Your task to perform on an android device: Turn on the flashlight Image 0: 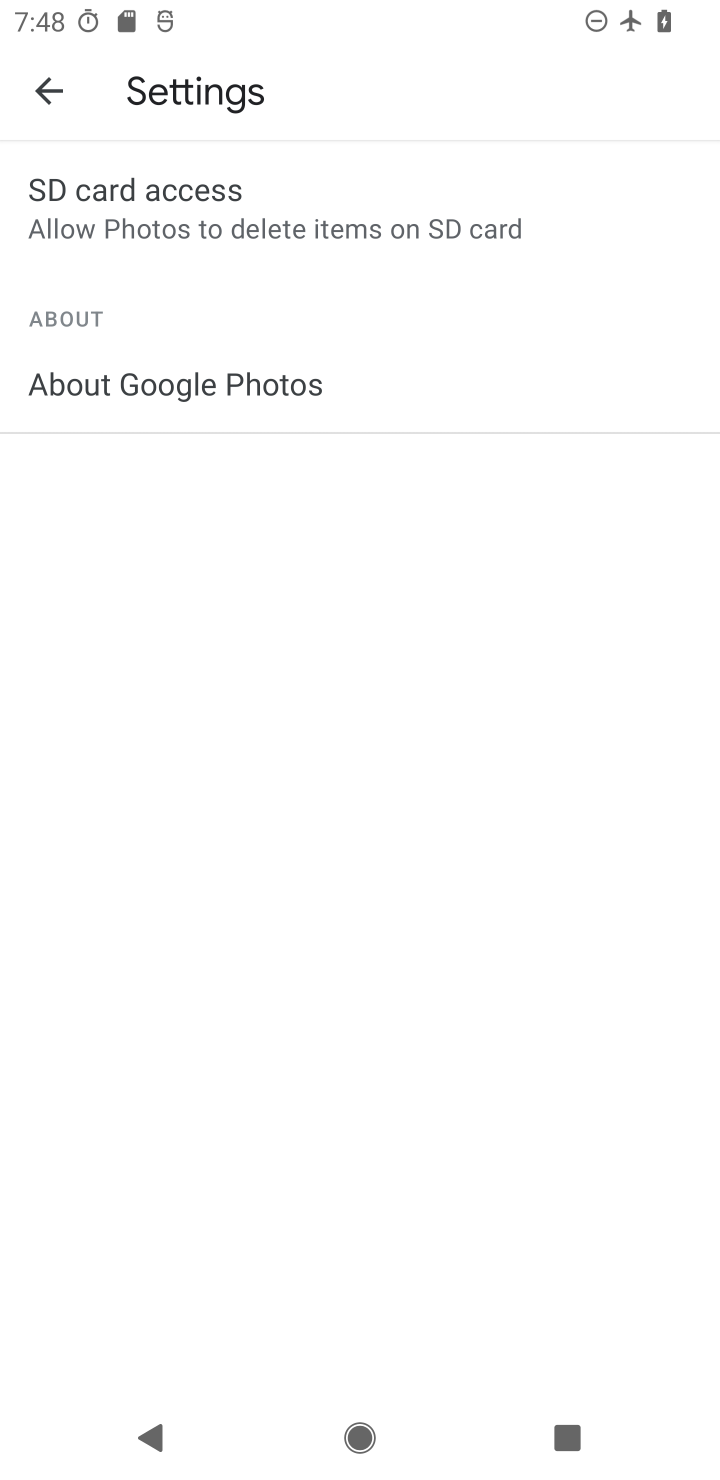
Step 0: press home button
Your task to perform on an android device: Turn on the flashlight Image 1: 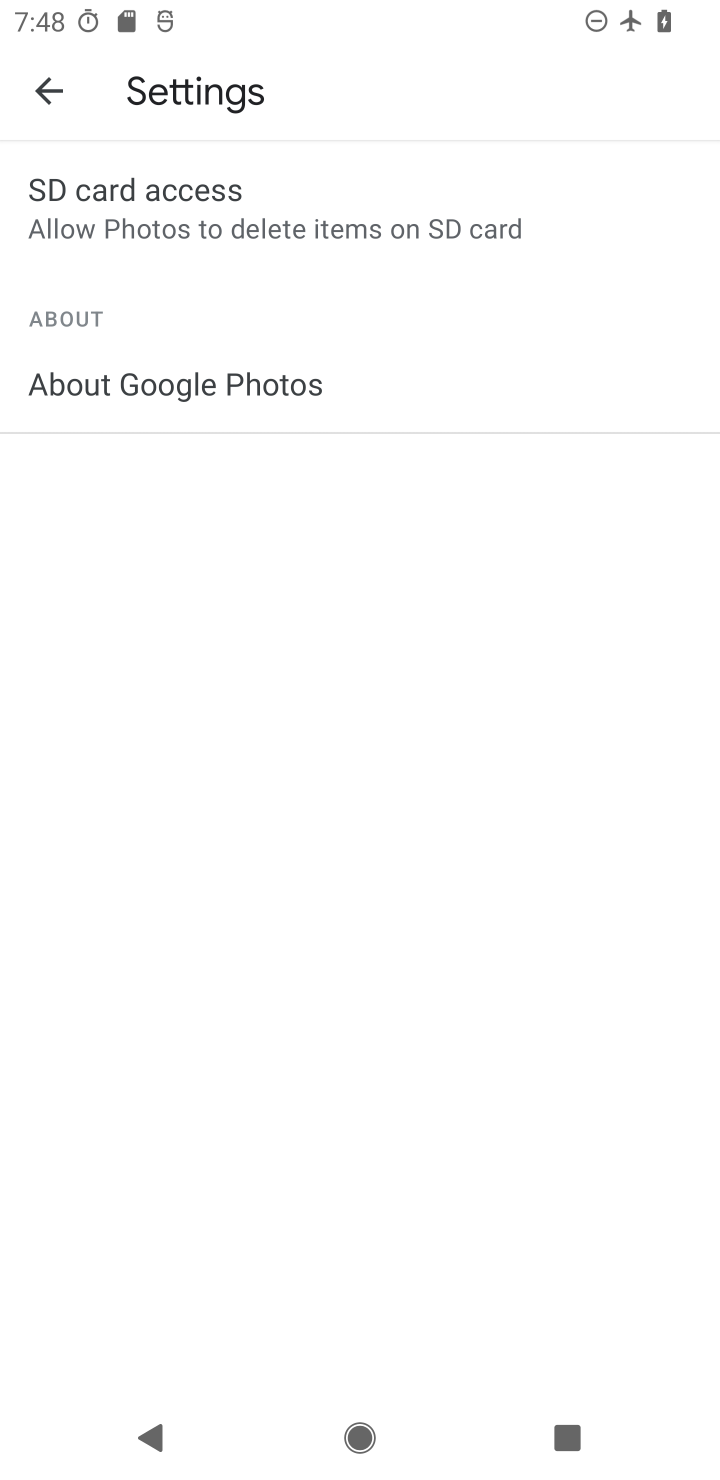
Step 1: press home button
Your task to perform on an android device: Turn on the flashlight Image 2: 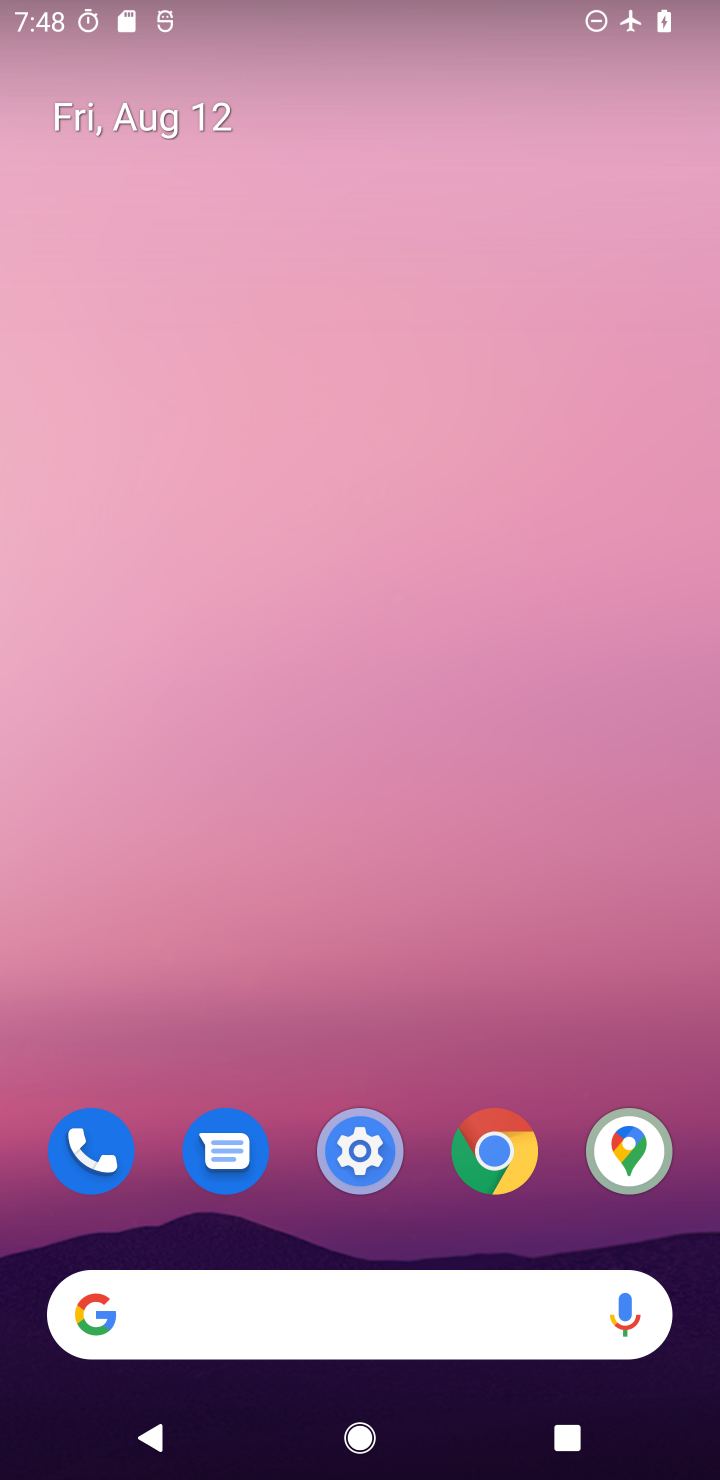
Step 2: drag from (459, 881) to (673, 17)
Your task to perform on an android device: Turn on the flashlight Image 3: 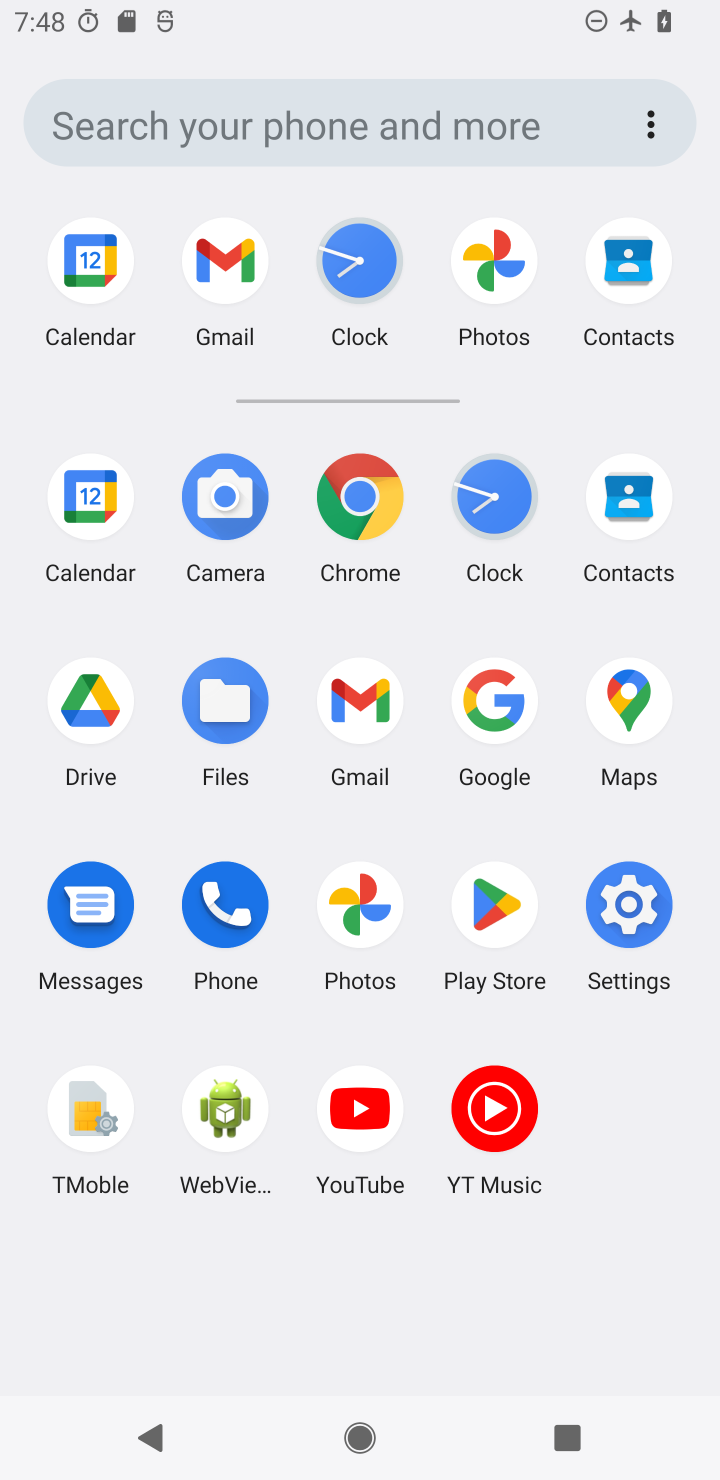
Step 3: click (624, 924)
Your task to perform on an android device: Turn on the flashlight Image 4: 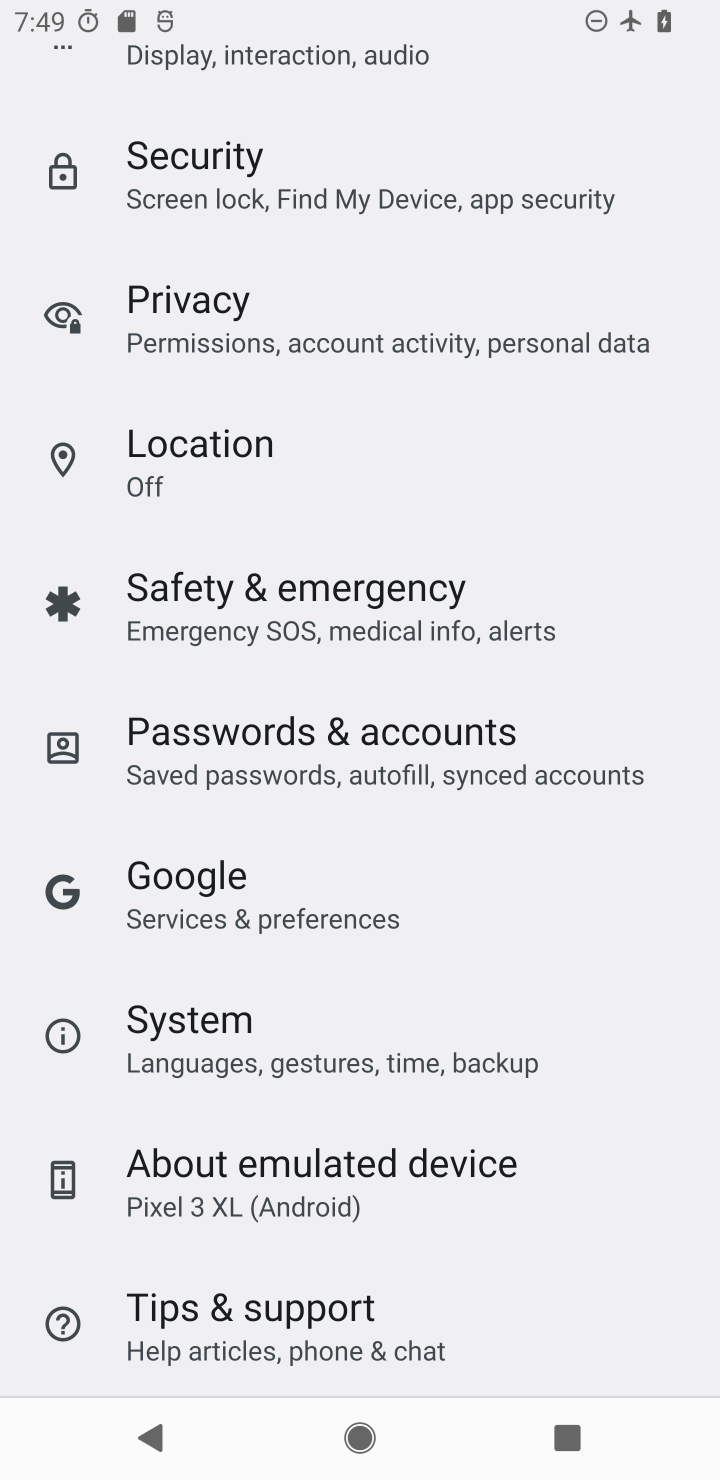
Step 4: drag from (489, 291) to (434, 1387)
Your task to perform on an android device: Turn on the flashlight Image 5: 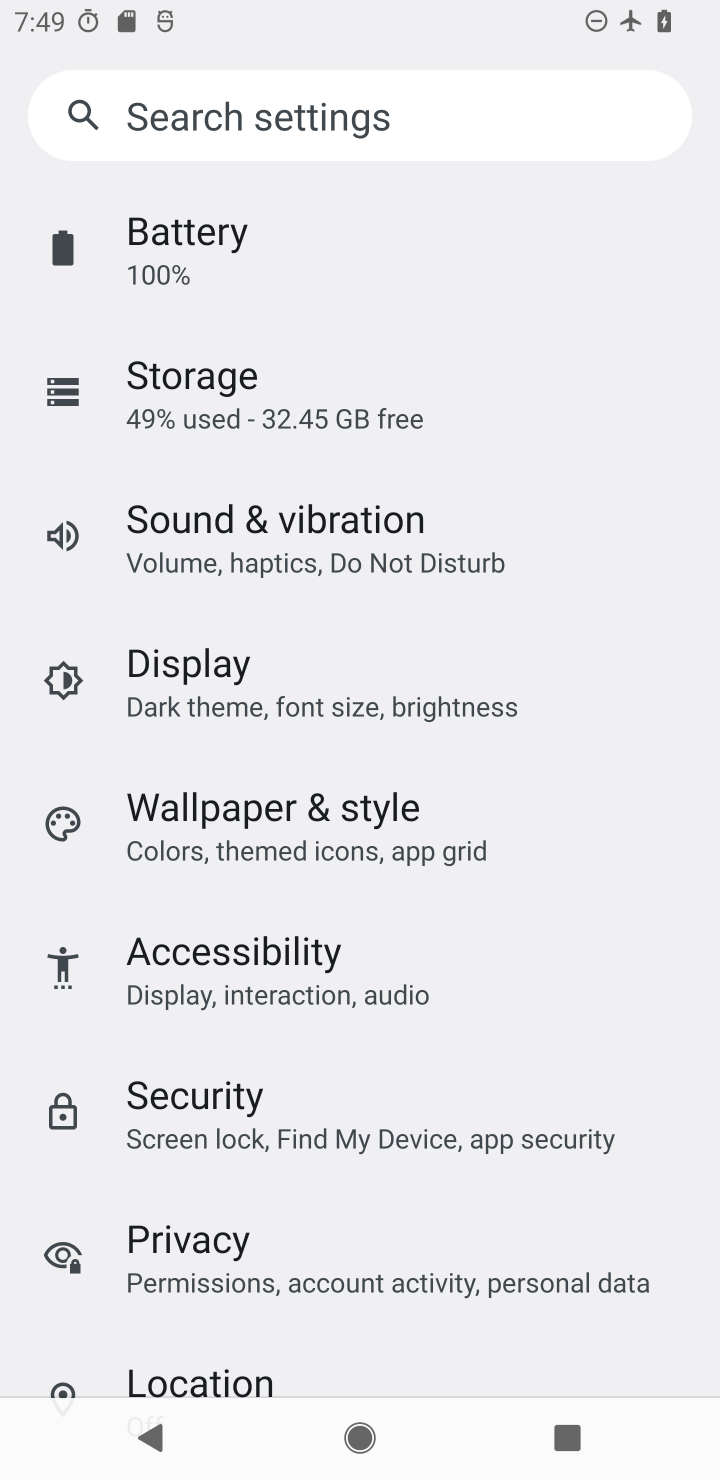
Step 5: click (252, 679)
Your task to perform on an android device: Turn on the flashlight Image 6: 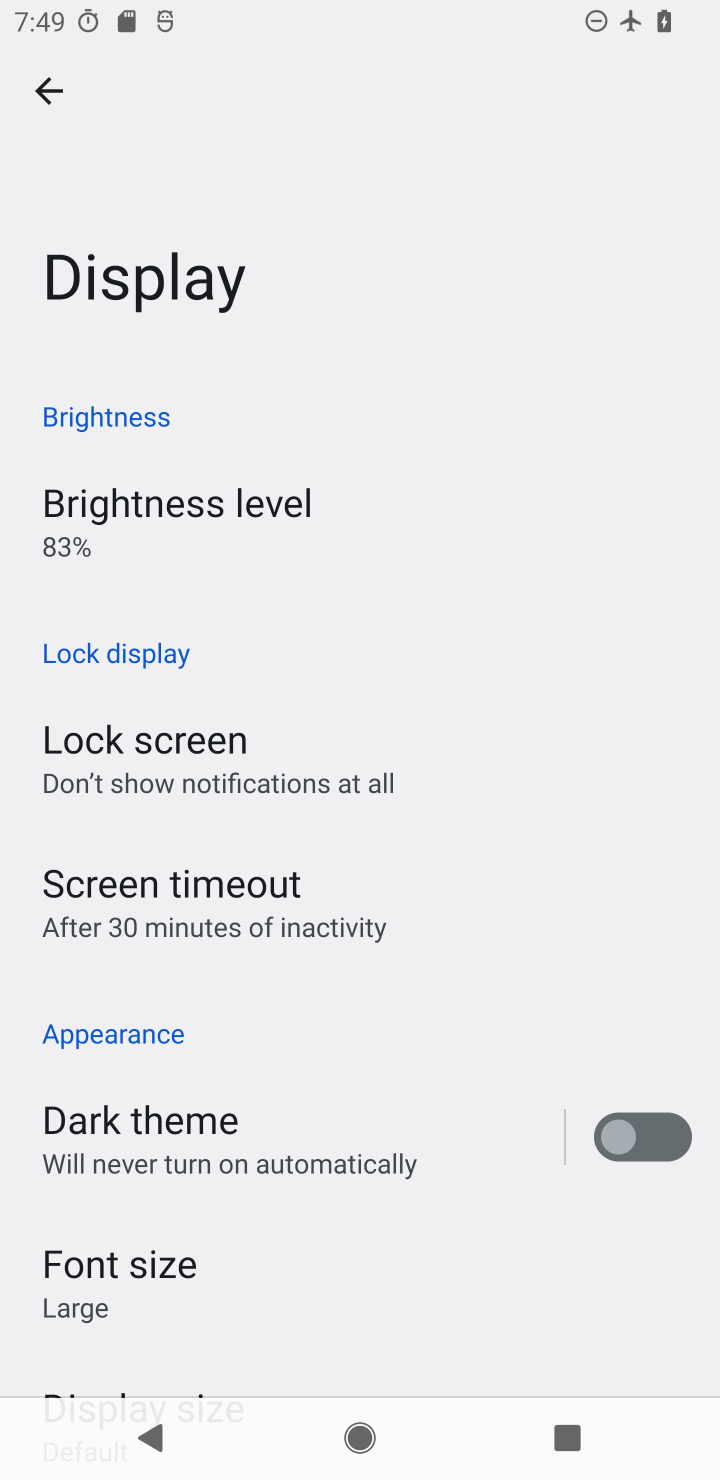
Step 6: click (305, 921)
Your task to perform on an android device: Turn on the flashlight Image 7: 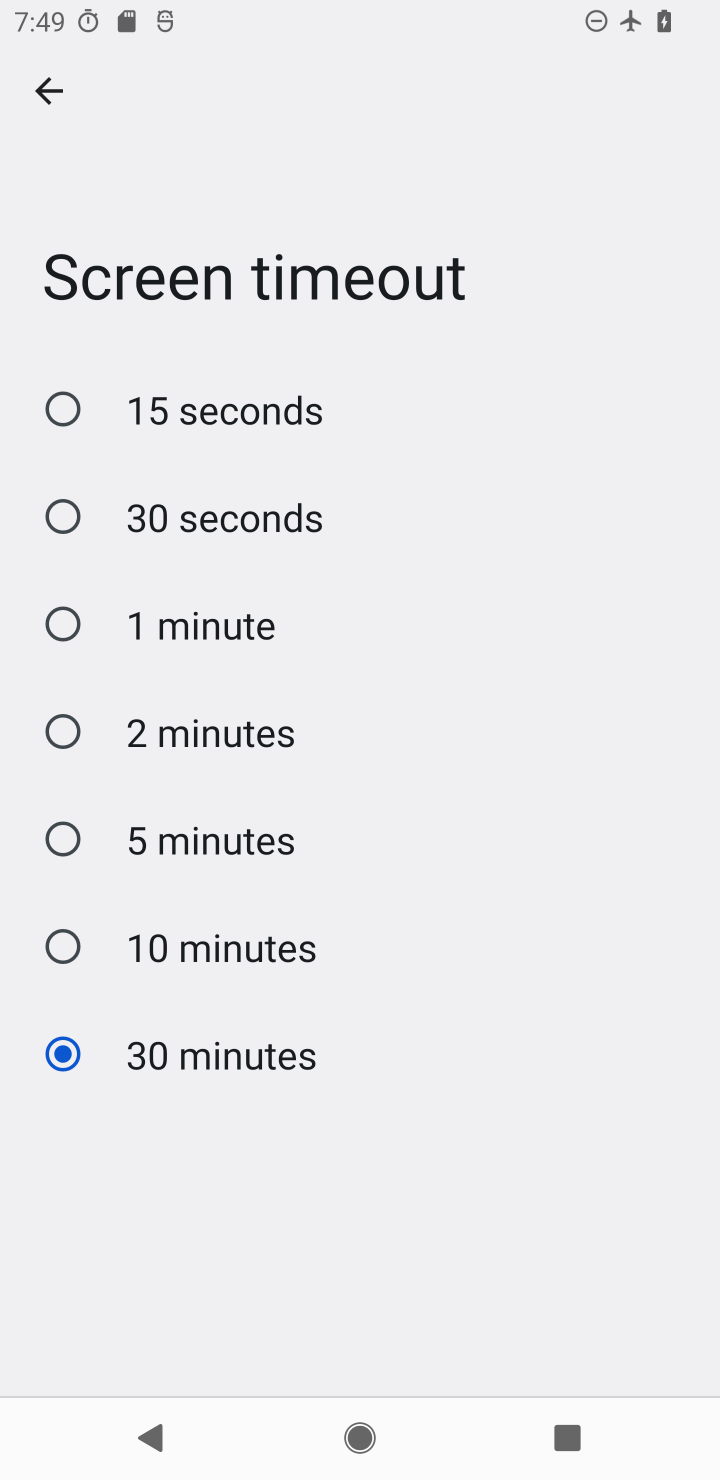
Step 7: task complete